Your task to perform on an android device: Open battery settings Image 0: 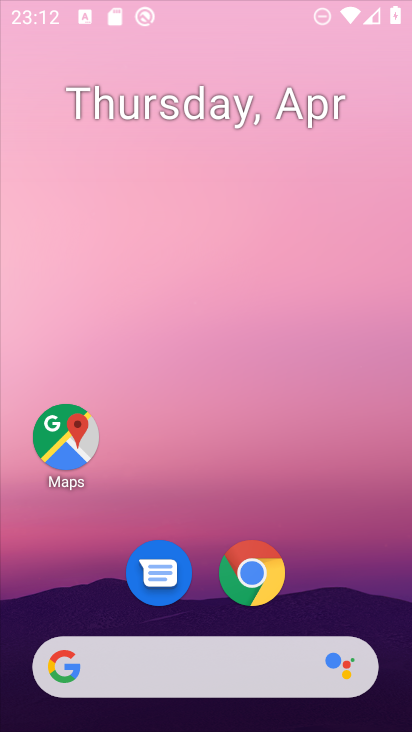
Step 0: click (328, 159)
Your task to perform on an android device: Open battery settings Image 1: 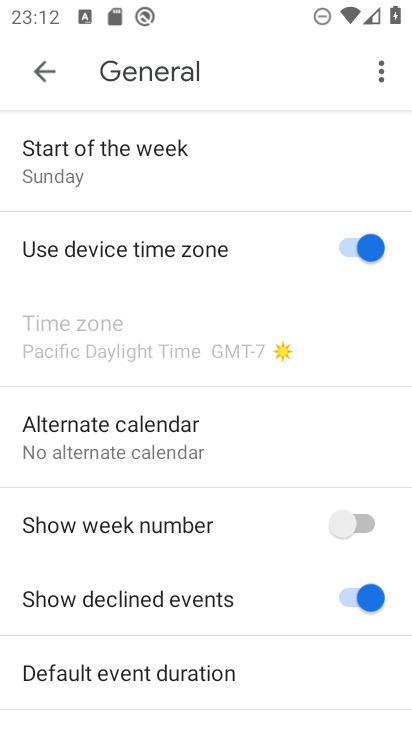
Step 1: press home button
Your task to perform on an android device: Open battery settings Image 2: 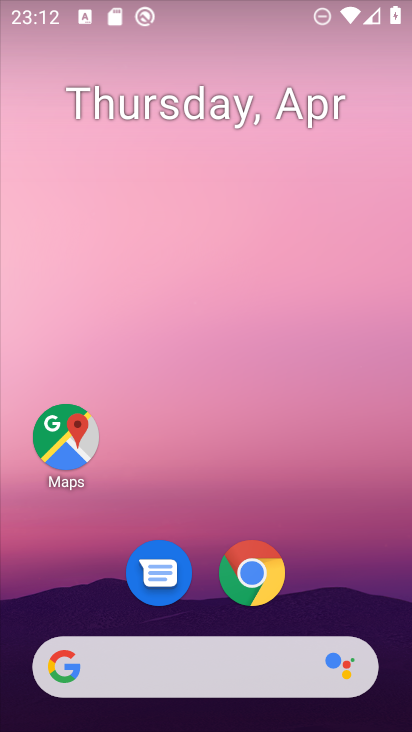
Step 2: drag from (326, 608) to (309, 147)
Your task to perform on an android device: Open battery settings Image 3: 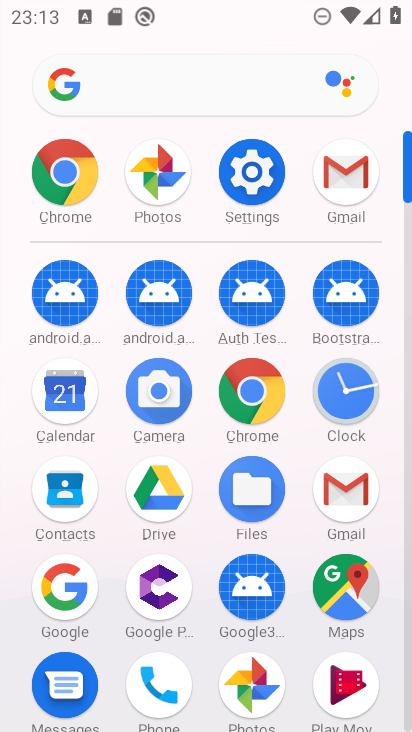
Step 3: click (266, 171)
Your task to perform on an android device: Open battery settings Image 4: 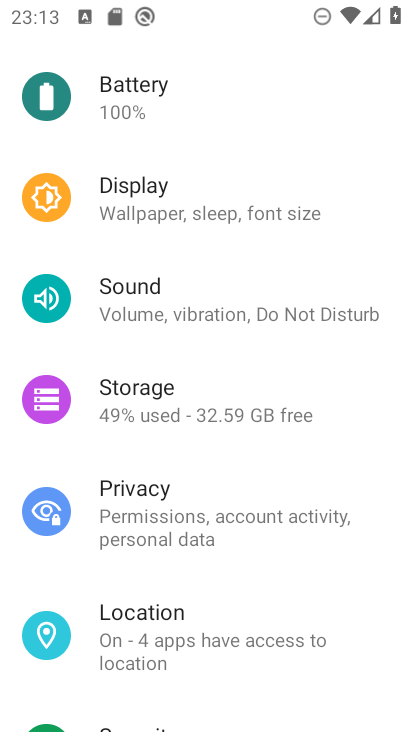
Step 4: drag from (275, 186) to (293, 438)
Your task to perform on an android device: Open battery settings Image 5: 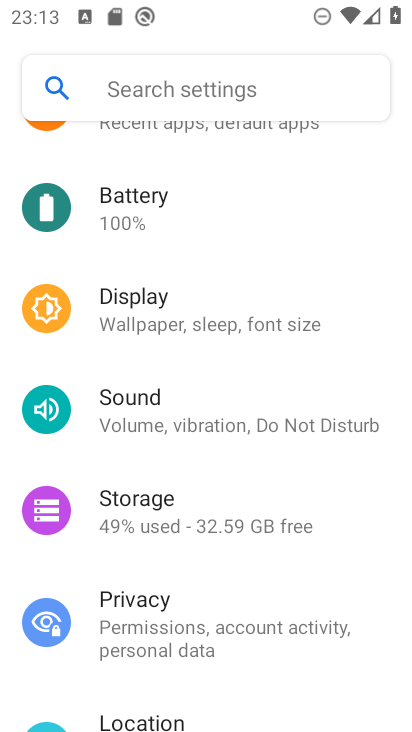
Step 5: click (142, 218)
Your task to perform on an android device: Open battery settings Image 6: 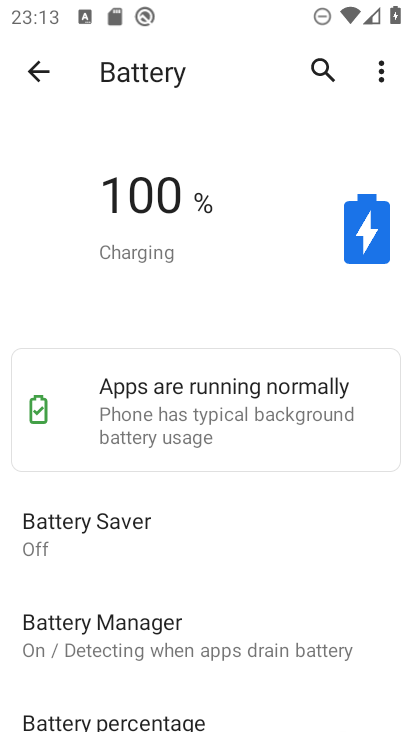
Step 6: task complete